Your task to perform on an android device: open wifi settings Image 0: 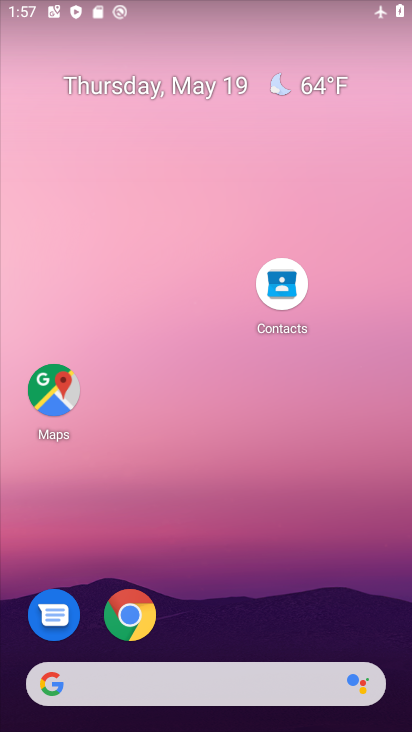
Step 0: drag from (213, 607) to (242, 302)
Your task to perform on an android device: open wifi settings Image 1: 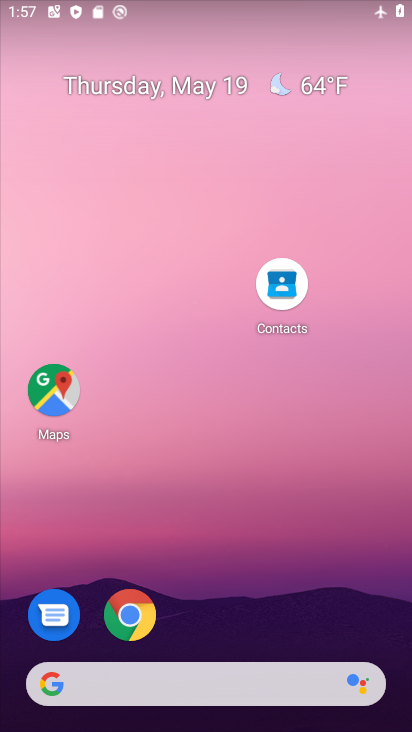
Step 1: drag from (161, 557) to (256, 187)
Your task to perform on an android device: open wifi settings Image 2: 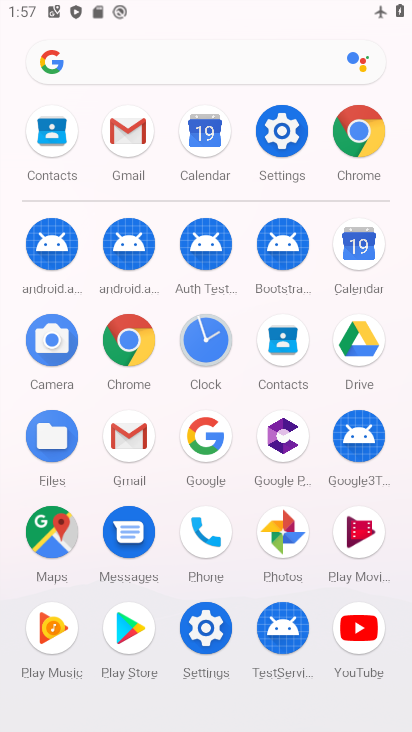
Step 2: click (274, 154)
Your task to perform on an android device: open wifi settings Image 3: 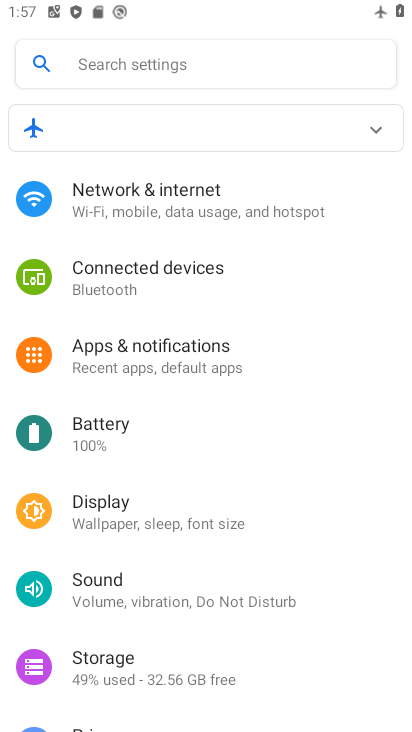
Step 3: click (258, 211)
Your task to perform on an android device: open wifi settings Image 4: 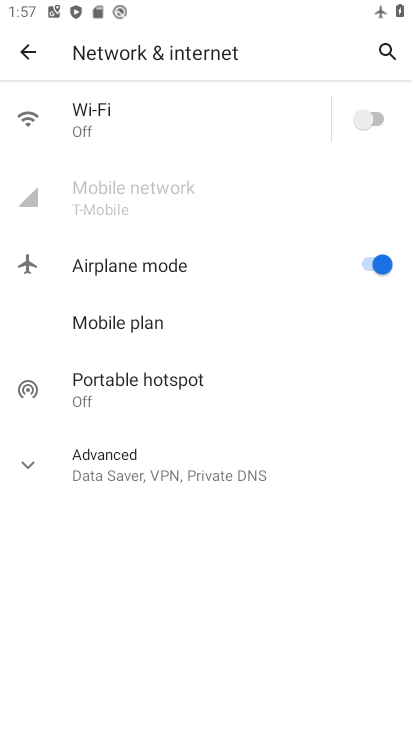
Step 4: click (218, 129)
Your task to perform on an android device: open wifi settings Image 5: 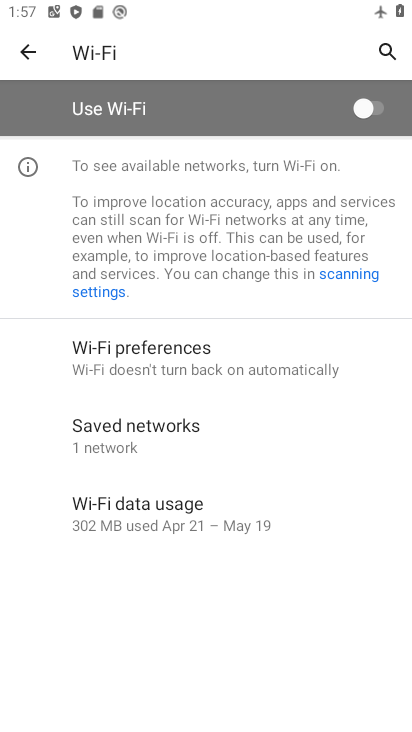
Step 5: task complete